Your task to perform on an android device: Go to network settings Image 0: 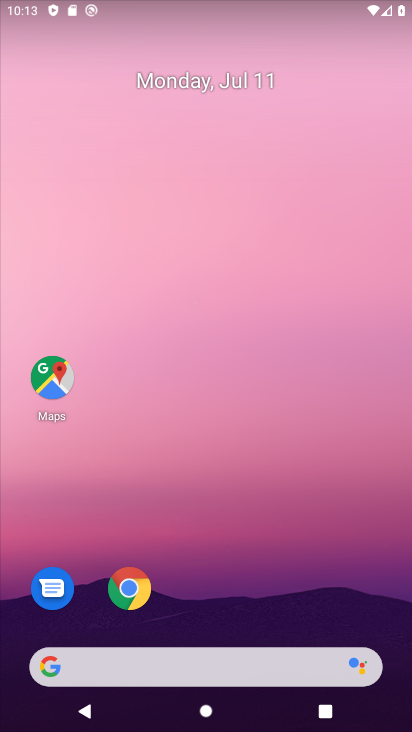
Step 0: drag from (253, 564) to (206, 152)
Your task to perform on an android device: Go to network settings Image 1: 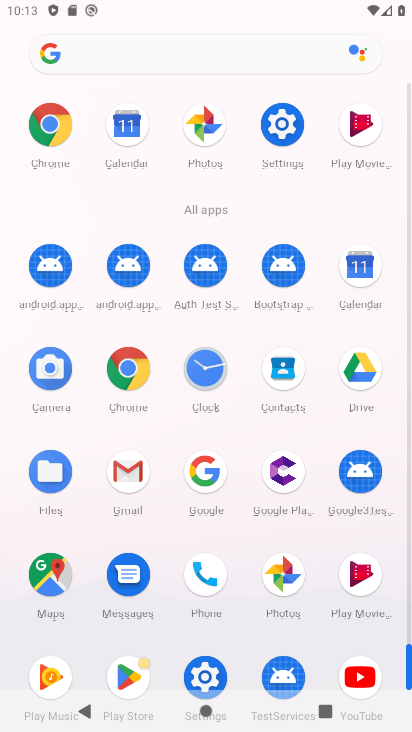
Step 1: click (283, 125)
Your task to perform on an android device: Go to network settings Image 2: 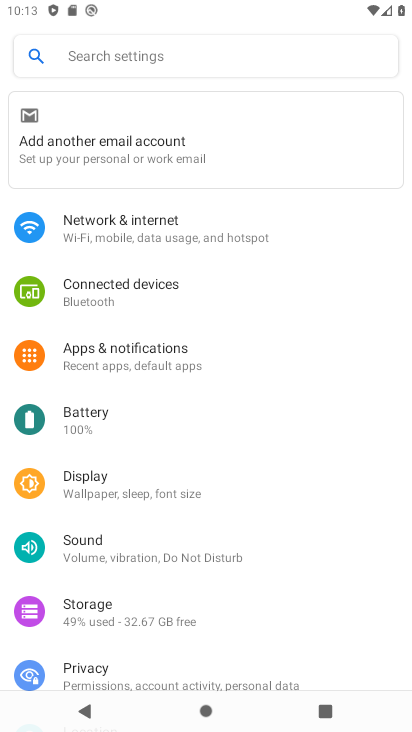
Step 2: click (125, 230)
Your task to perform on an android device: Go to network settings Image 3: 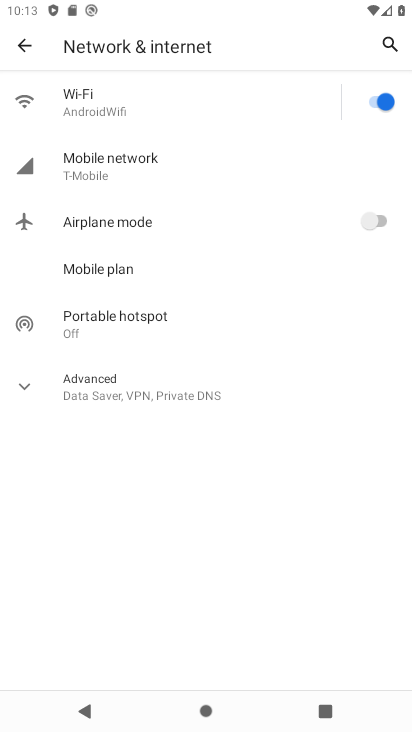
Step 3: task complete